Your task to perform on an android device: Go to privacy settings Image 0: 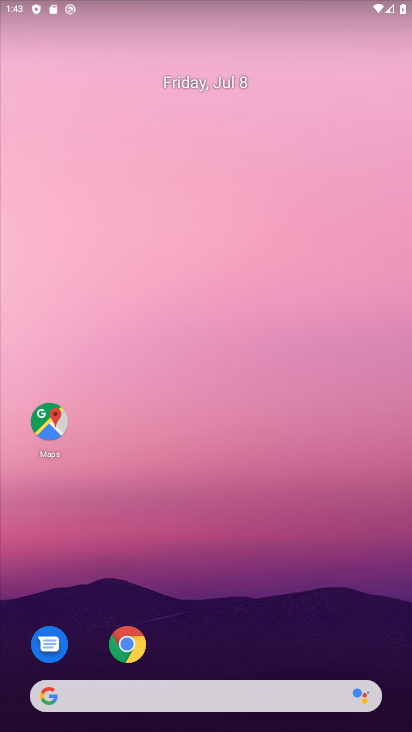
Step 0: drag from (232, 515) to (243, 133)
Your task to perform on an android device: Go to privacy settings Image 1: 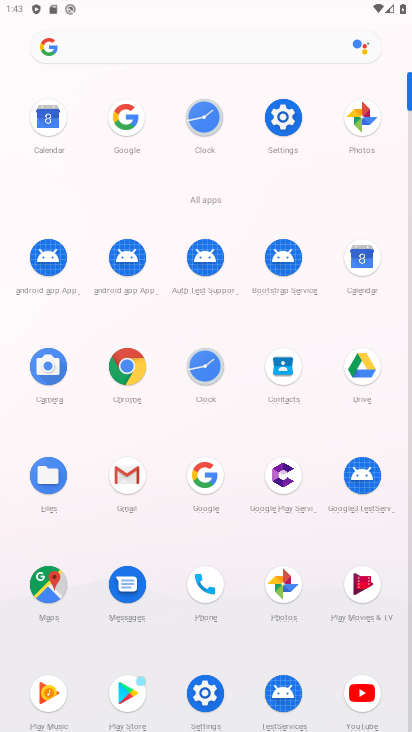
Step 1: click (281, 121)
Your task to perform on an android device: Go to privacy settings Image 2: 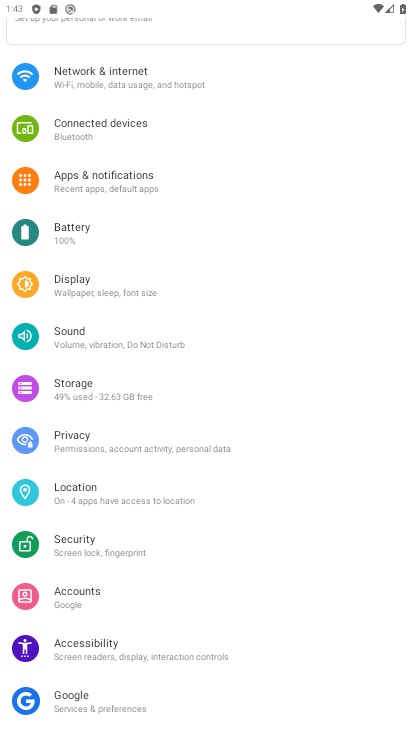
Step 2: click (141, 450)
Your task to perform on an android device: Go to privacy settings Image 3: 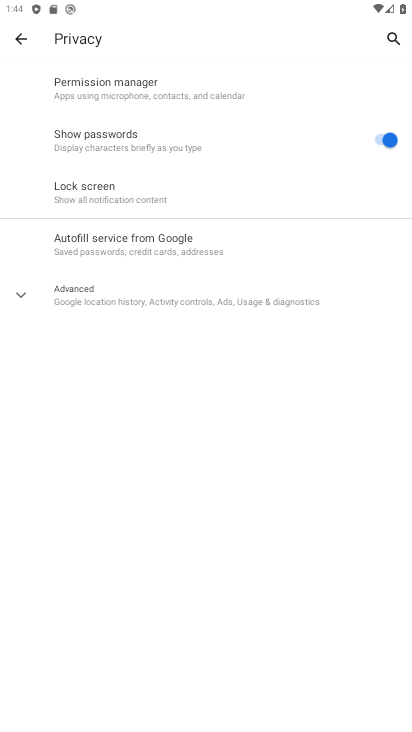
Step 3: task complete